Your task to perform on an android device: Go to display settings Image 0: 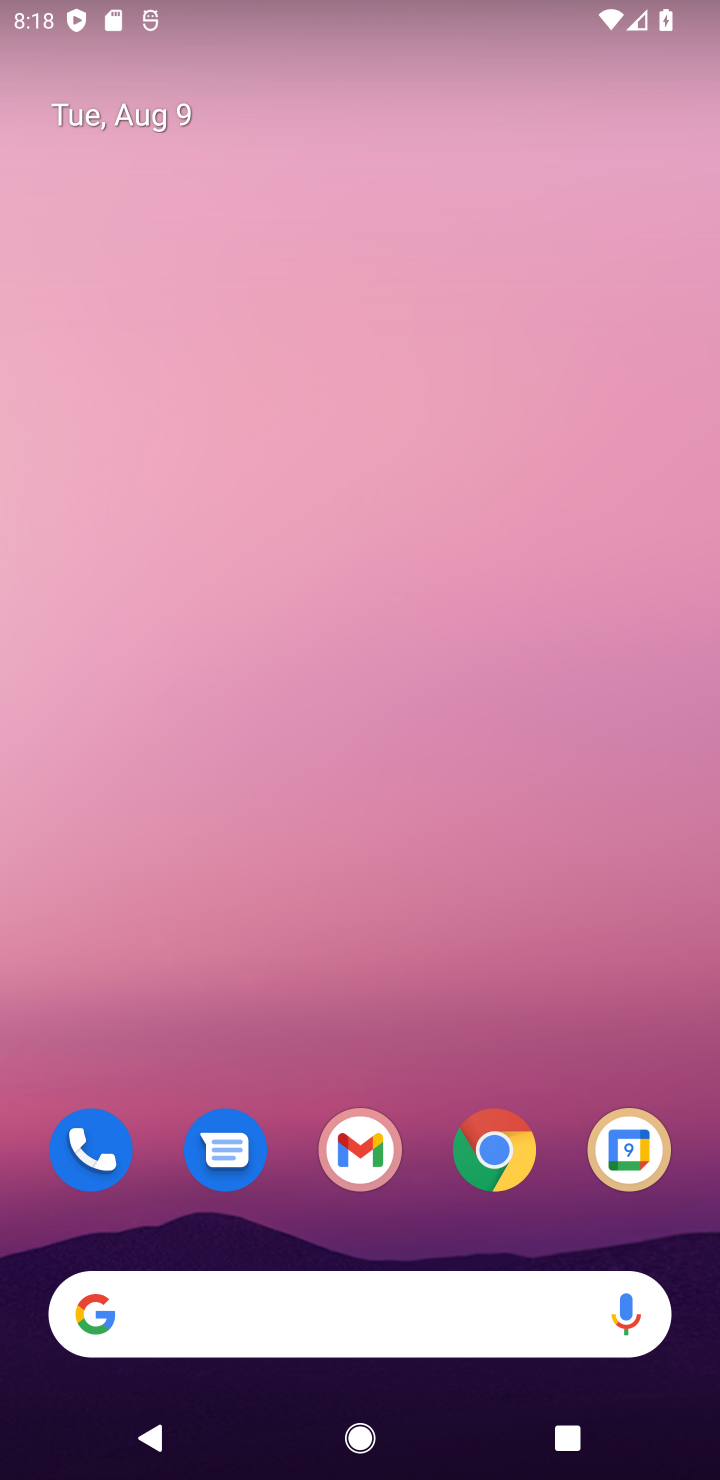
Step 0: drag from (414, 1184) to (632, 287)
Your task to perform on an android device: Go to display settings Image 1: 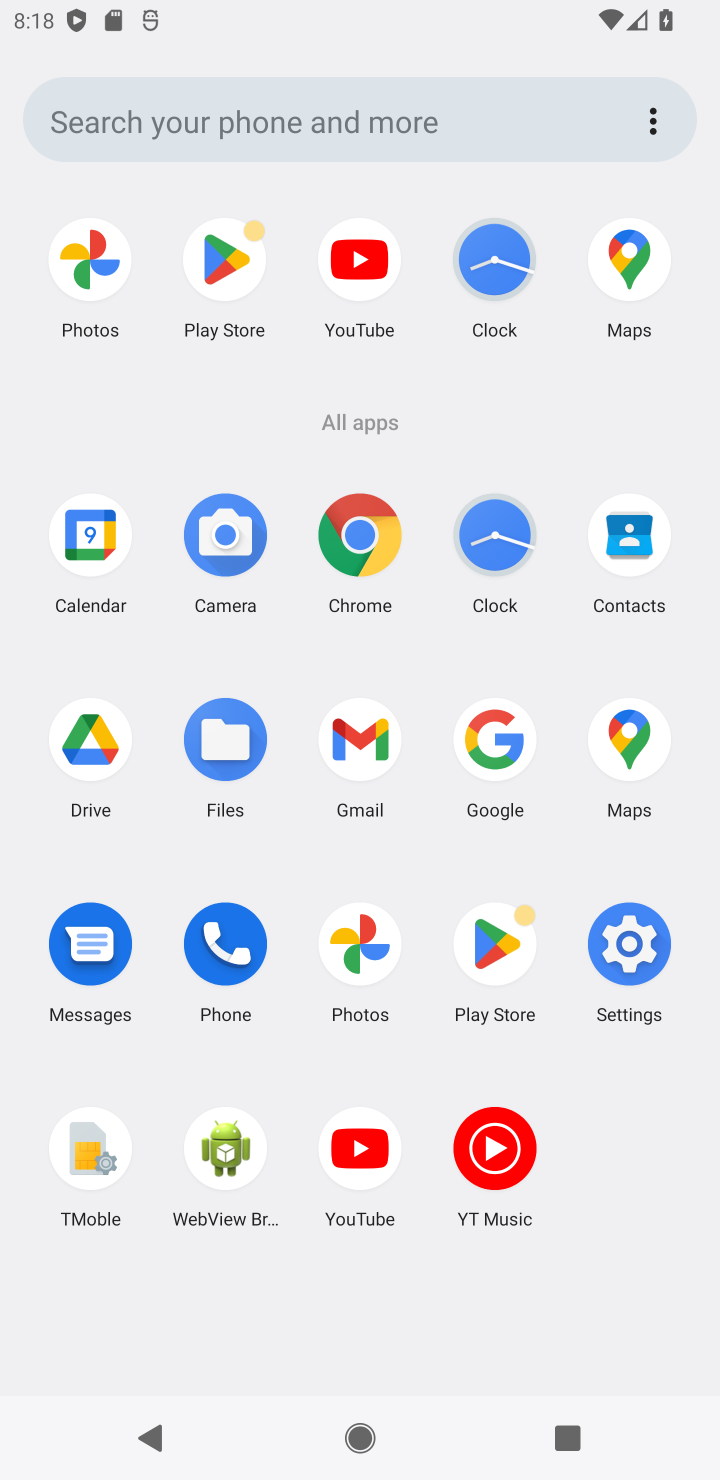
Step 1: drag from (639, 944) to (393, 854)
Your task to perform on an android device: Go to display settings Image 2: 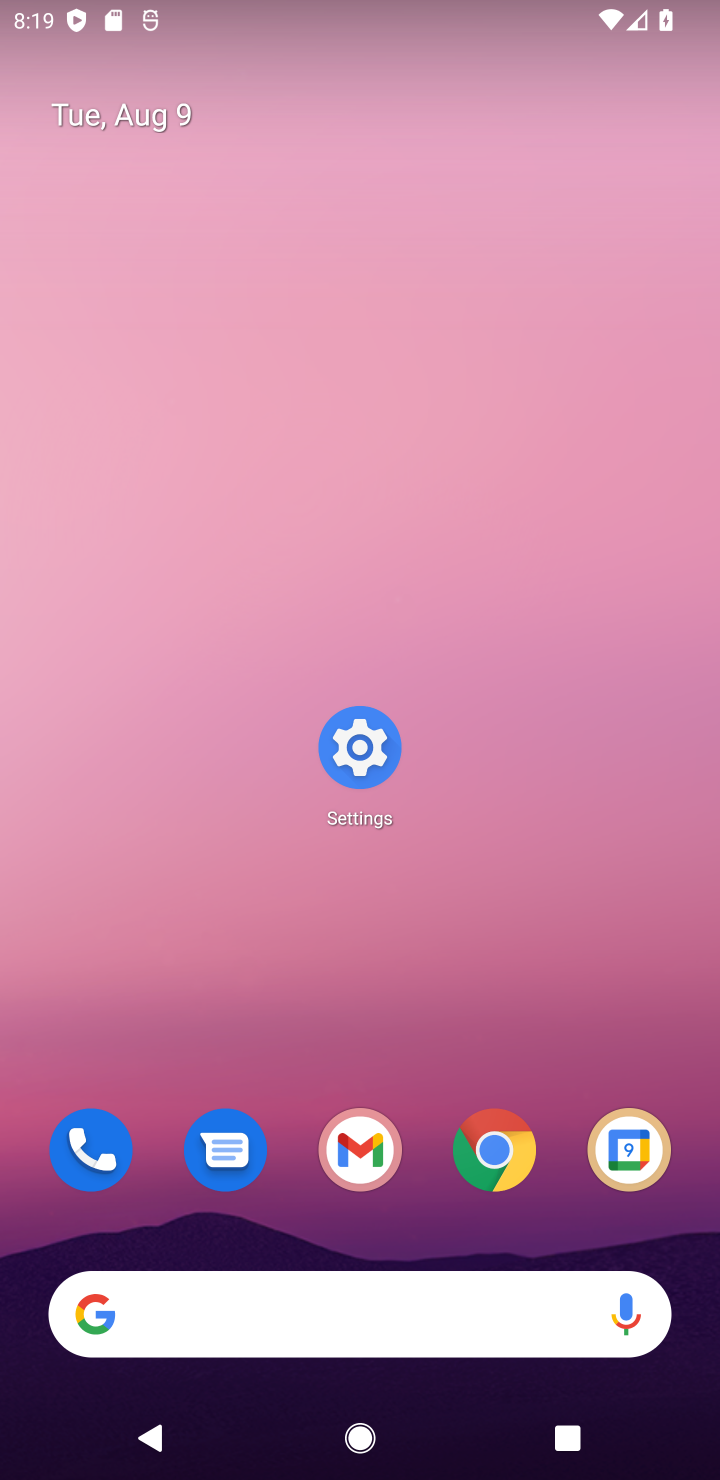
Step 2: click (370, 731)
Your task to perform on an android device: Go to display settings Image 3: 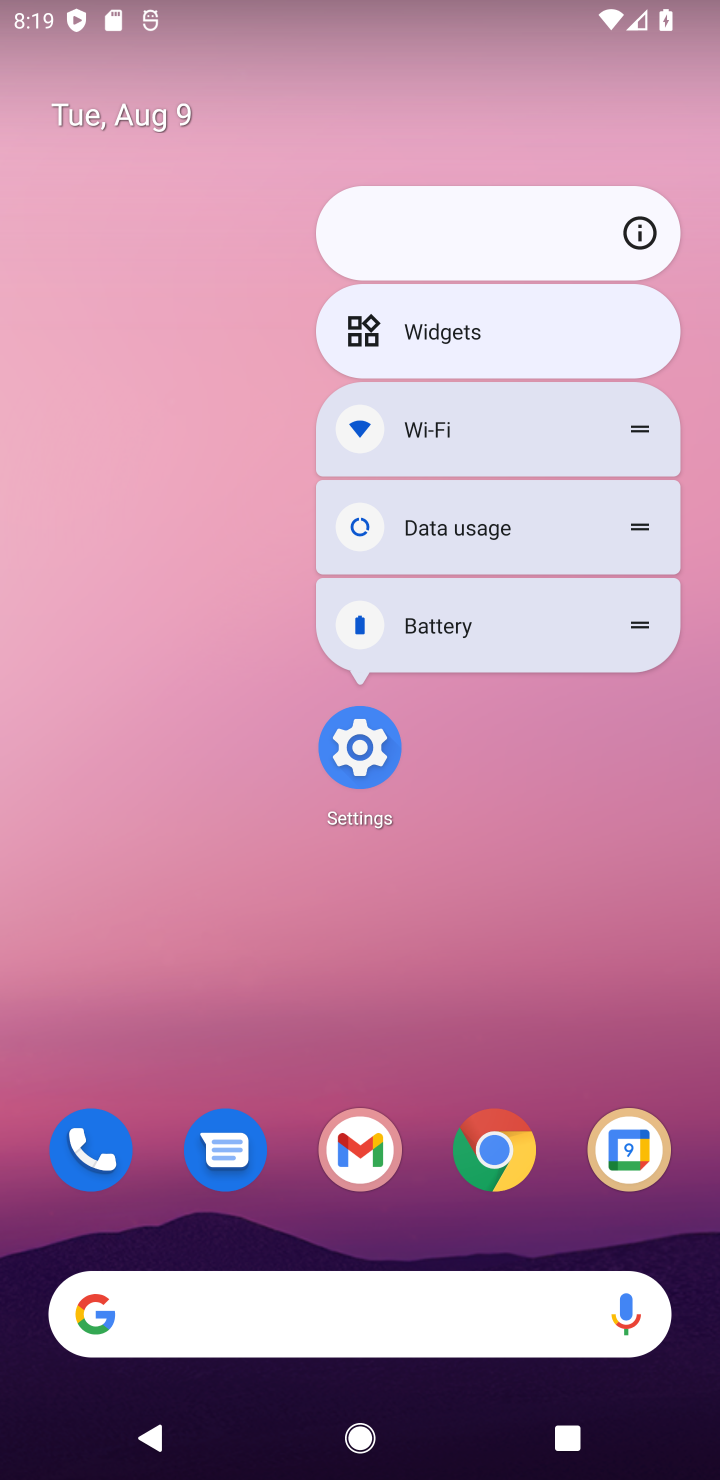
Step 3: click (363, 753)
Your task to perform on an android device: Go to display settings Image 4: 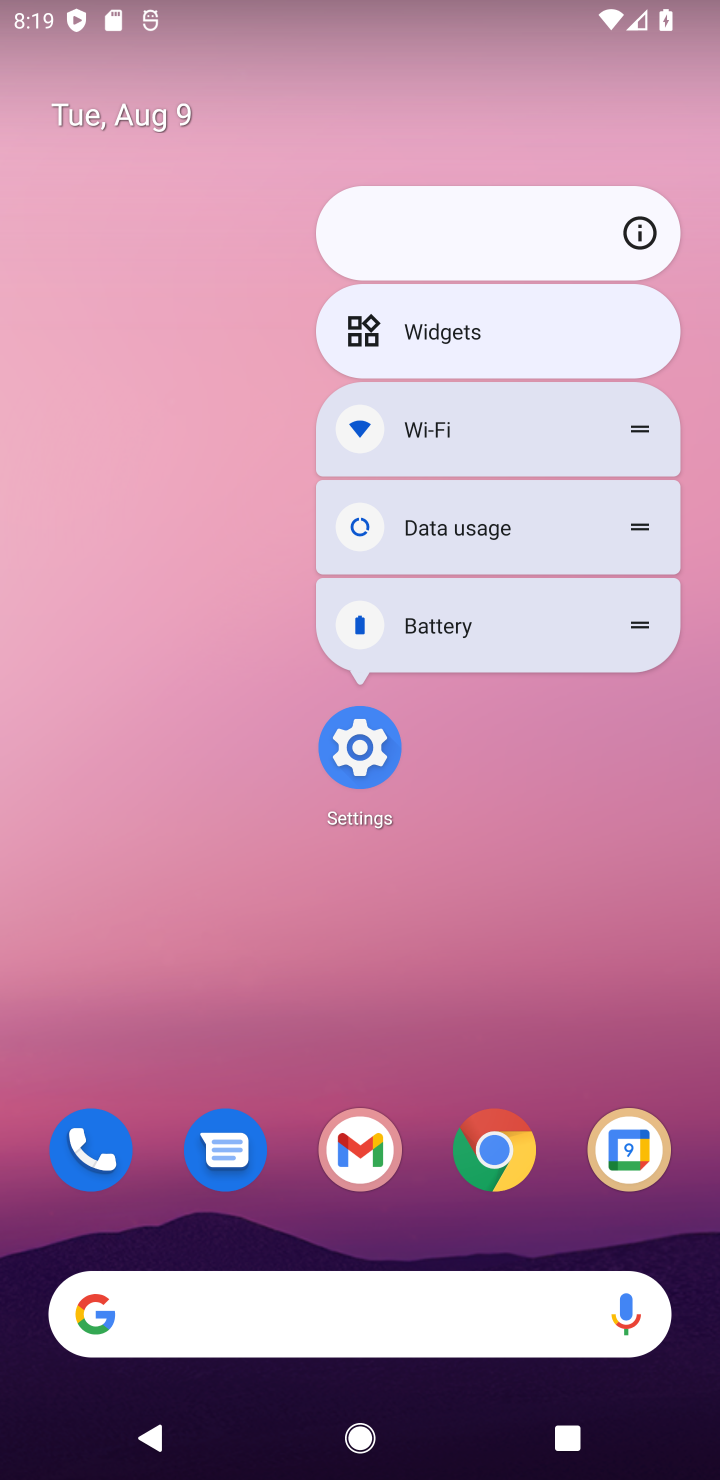
Step 4: click (363, 767)
Your task to perform on an android device: Go to display settings Image 5: 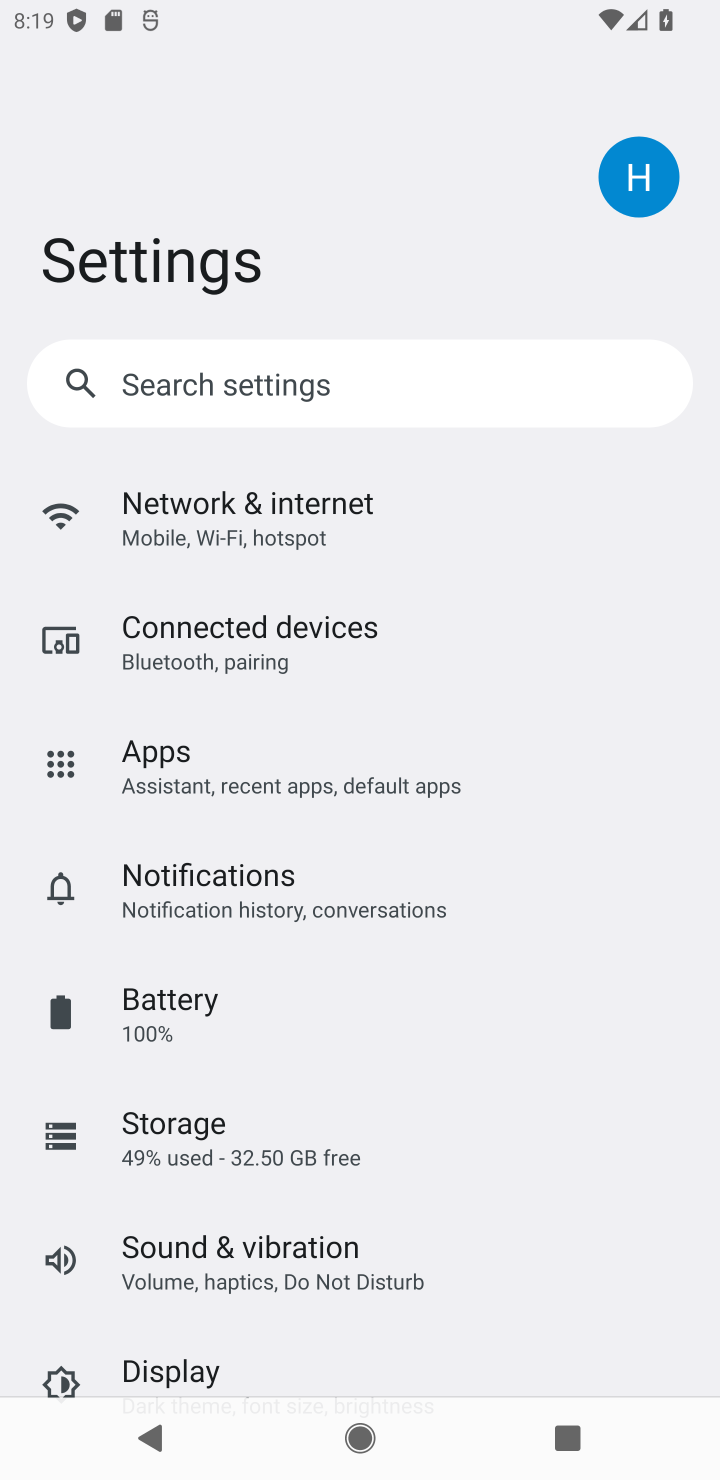
Step 5: click (212, 1362)
Your task to perform on an android device: Go to display settings Image 6: 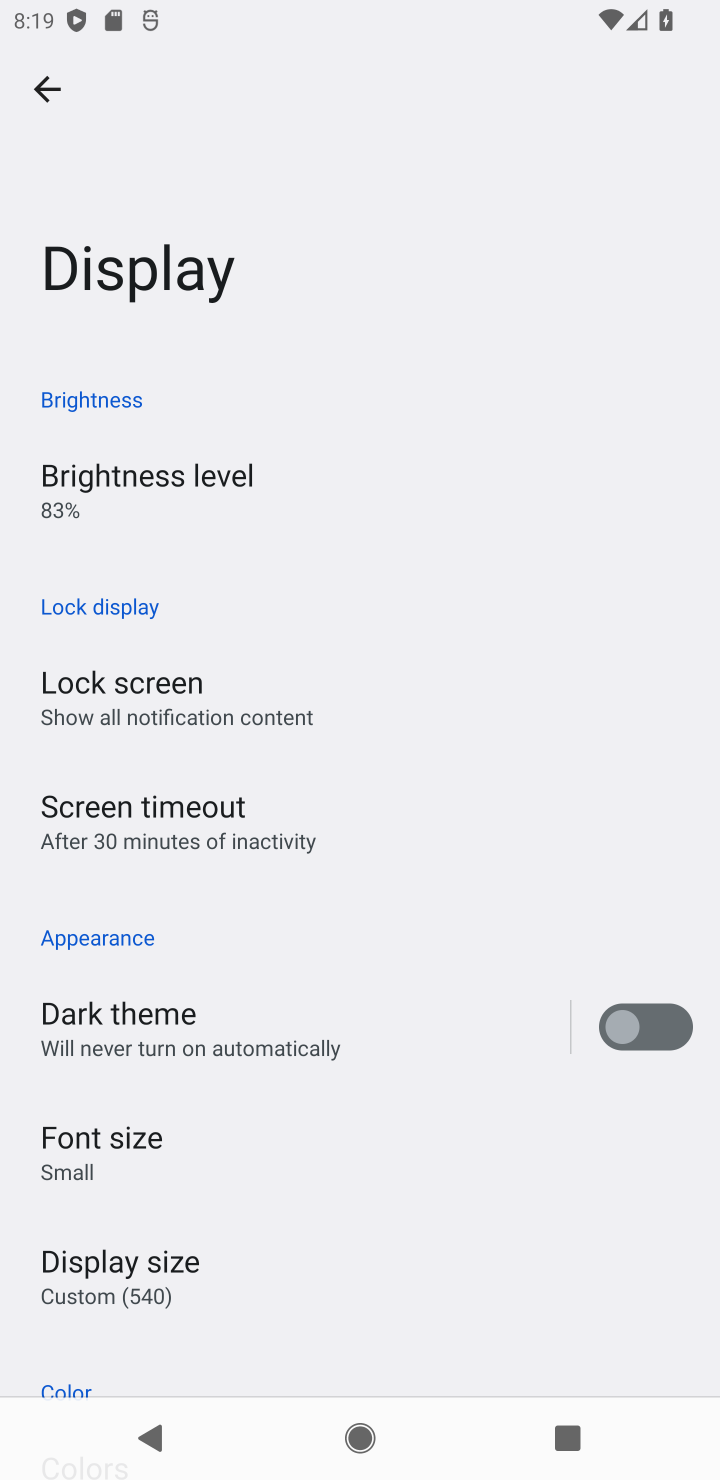
Step 6: task complete